Your task to perform on an android device: Open location settings Image 0: 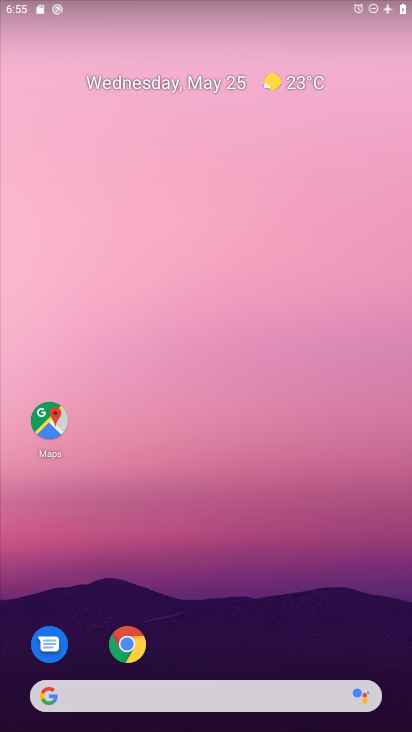
Step 0: drag from (357, 636) to (245, 50)
Your task to perform on an android device: Open location settings Image 1: 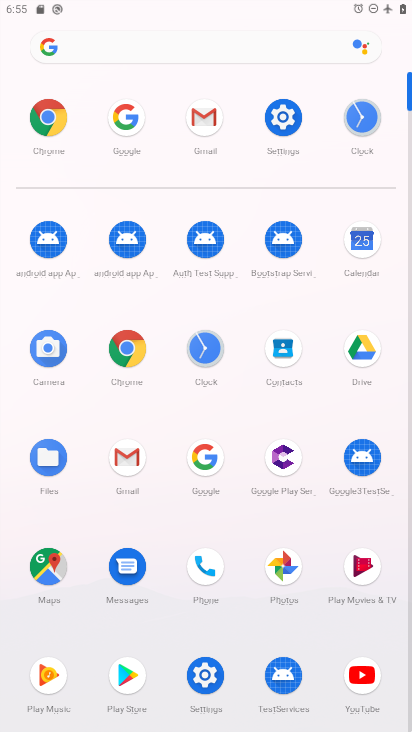
Step 1: click (279, 124)
Your task to perform on an android device: Open location settings Image 2: 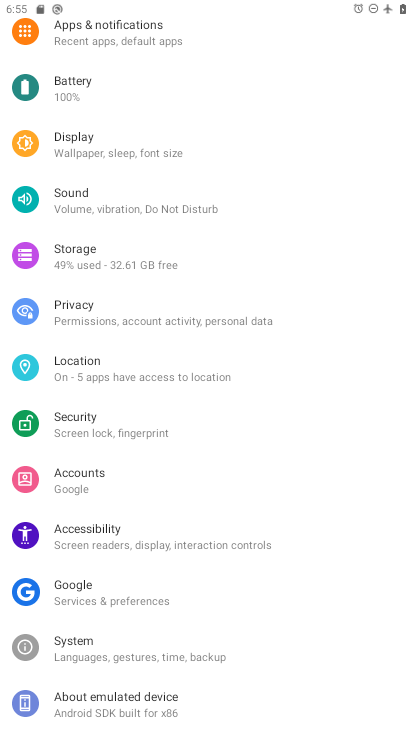
Step 2: click (109, 369)
Your task to perform on an android device: Open location settings Image 3: 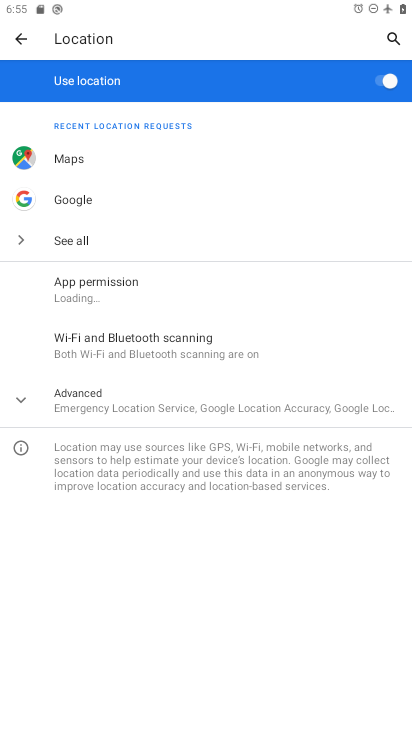
Step 3: task complete